Your task to perform on an android device: clear history in the chrome app Image 0: 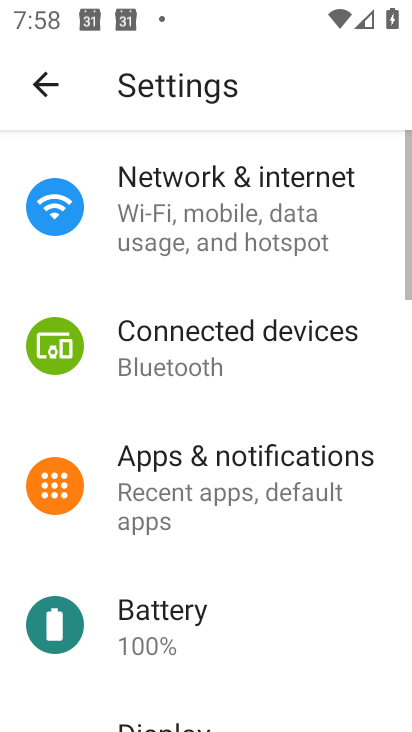
Step 0: press home button
Your task to perform on an android device: clear history in the chrome app Image 1: 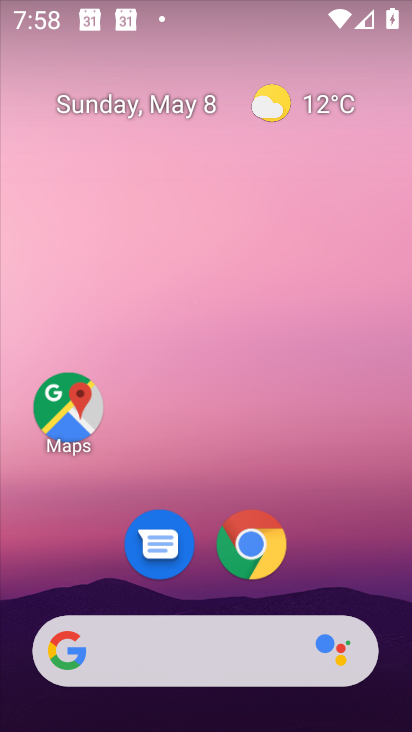
Step 1: click (255, 546)
Your task to perform on an android device: clear history in the chrome app Image 2: 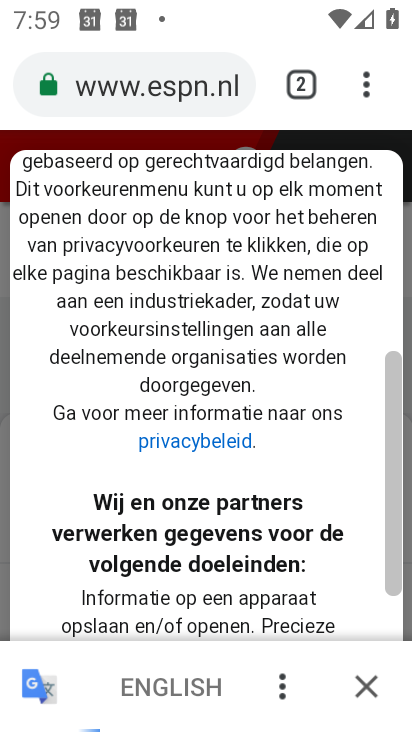
Step 2: click (364, 76)
Your task to perform on an android device: clear history in the chrome app Image 3: 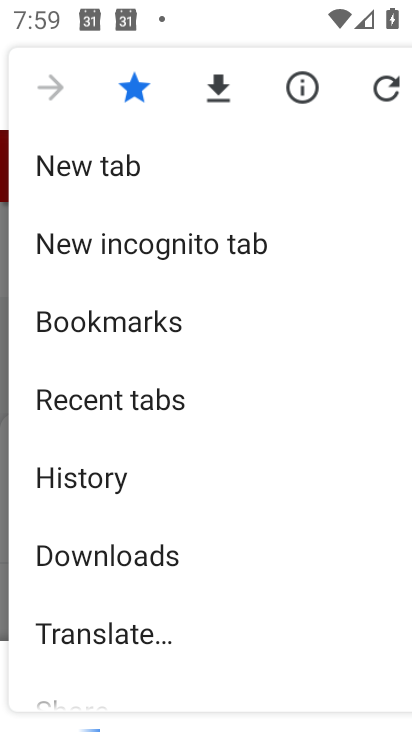
Step 3: click (78, 475)
Your task to perform on an android device: clear history in the chrome app Image 4: 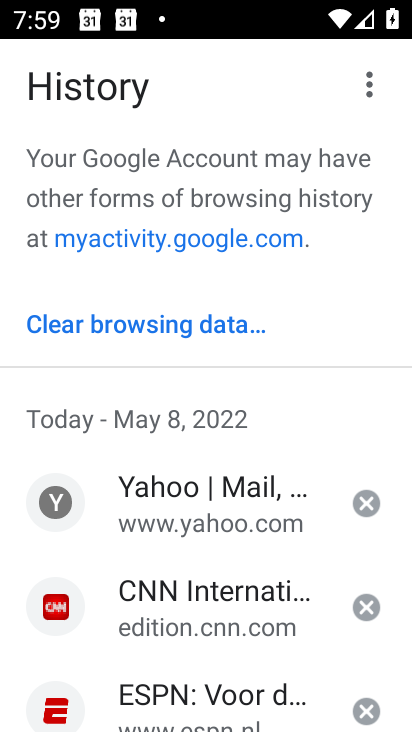
Step 4: click (143, 321)
Your task to perform on an android device: clear history in the chrome app Image 5: 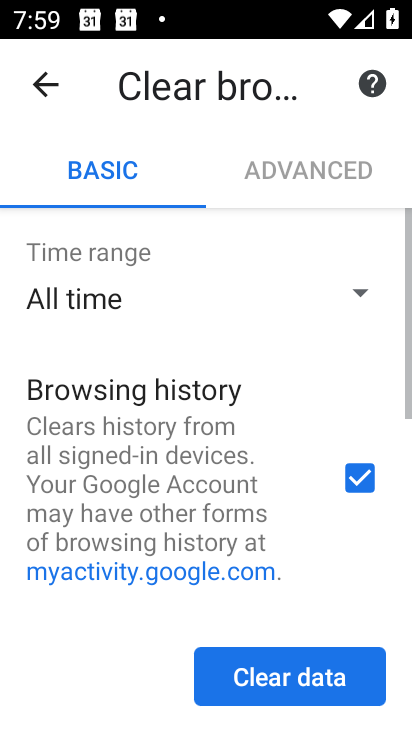
Step 5: drag from (322, 494) to (289, 291)
Your task to perform on an android device: clear history in the chrome app Image 6: 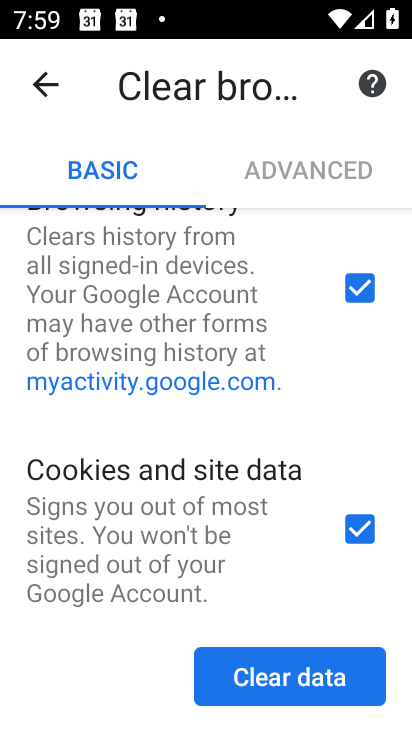
Step 6: click (300, 668)
Your task to perform on an android device: clear history in the chrome app Image 7: 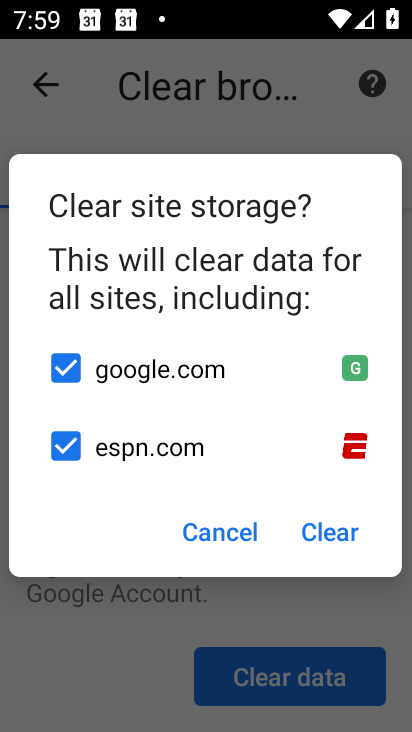
Step 7: click (336, 529)
Your task to perform on an android device: clear history in the chrome app Image 8: 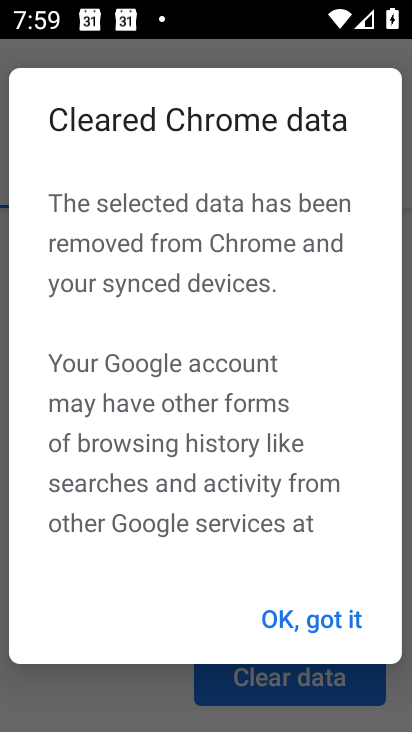
Step 8: click (329, 617)
Your task to perform on an android device: clear history in the chrome app Image 9: 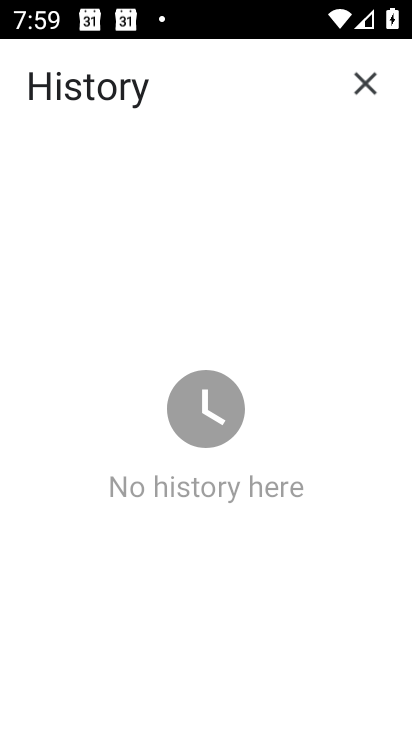
Step 9: task complete